Your task to perform on an android device: toggle airplane mode Image 0: 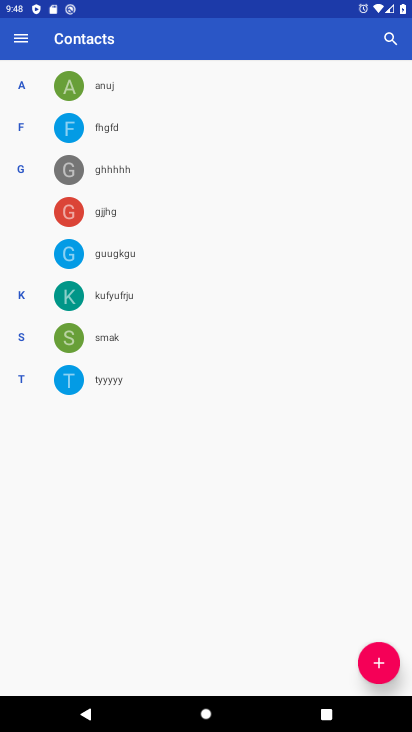
Step 0: press home button
Your task to perform on an android device: toggle airplane mode Image 1: 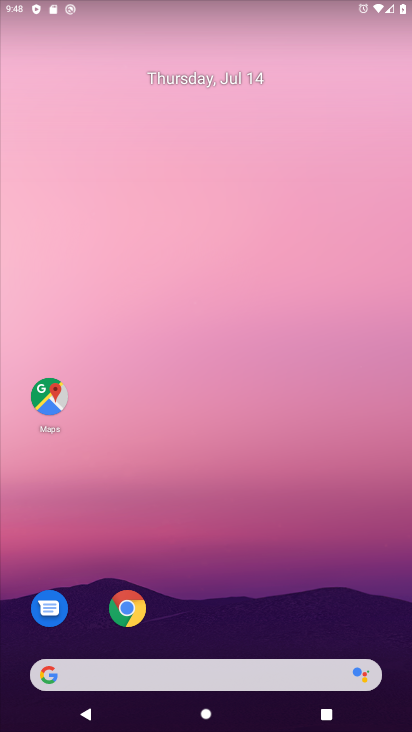
Step 1: drag from (270, 609) to (313, 51)
Your task to perform on an android device: toggle airplane mode Image 2: 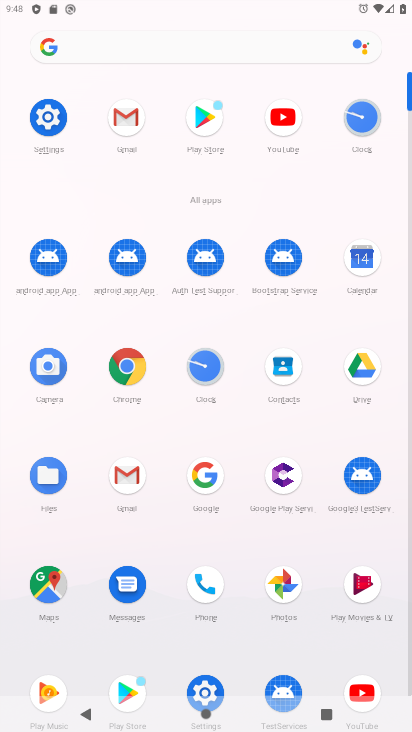
Step 2: click (43, 157)
Your task to perform on an android device: toggle airplane mode Image 3: 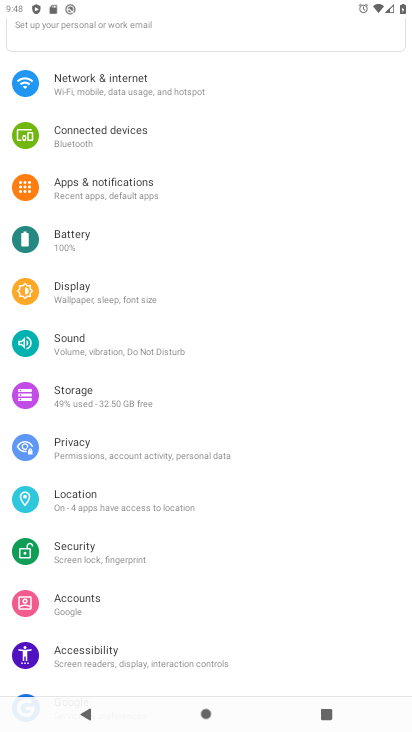
Step 3: click (145, 94)
Your task to perform on an android device: toggle airplane mode Image 4: 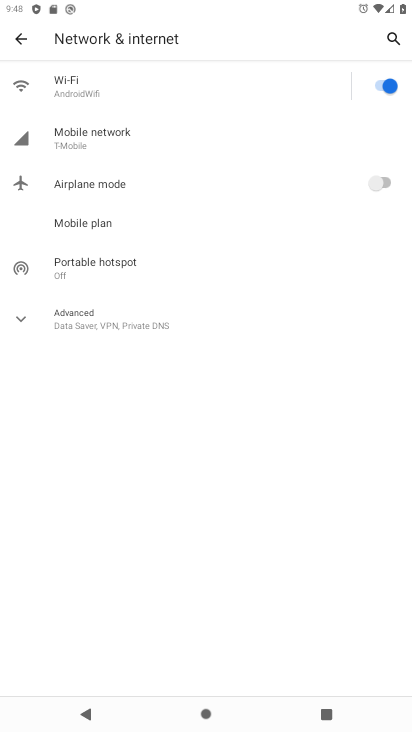
Step 4: click (372, 189)
Your task to perform on an android device: toggle airplane mode Image 5: 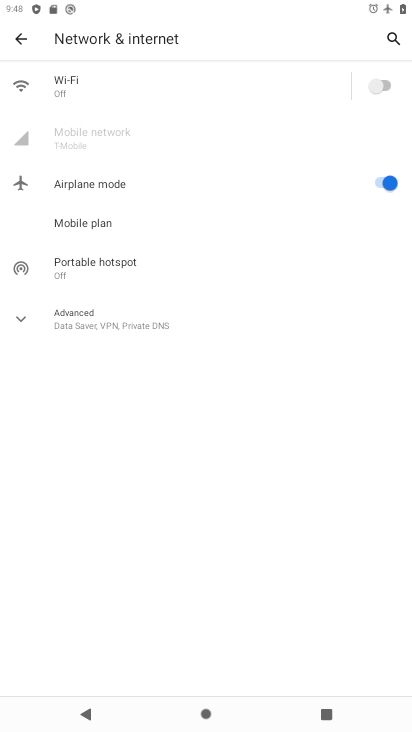
Step 5: task complete